Your task to perform on an android device: Go to calendar. Show me events next week Image 0: 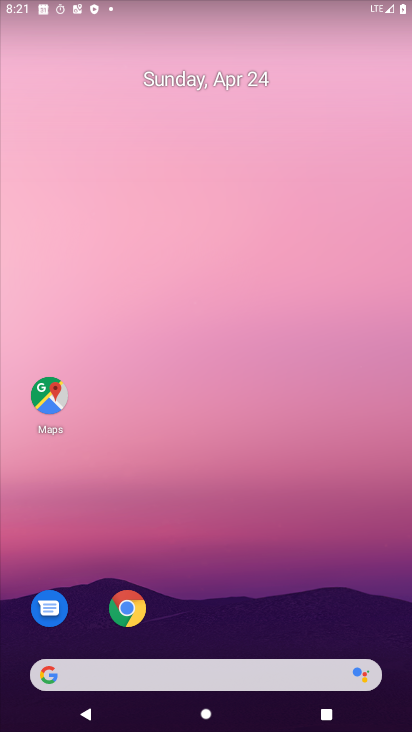
Step 0: drag from (300, 535) to (305, 91)
Your task to perform on an android device: Go to calendar. Show me events next week Image 1: 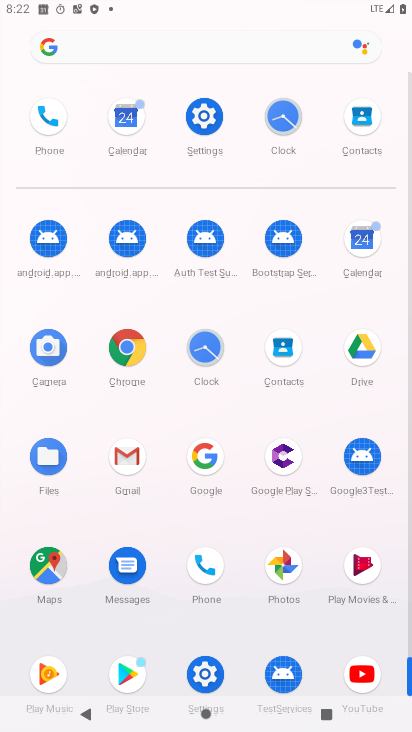
Step 1: click (363, 245)
Your task to perform on an android device: Go to calendar. Show me events next week Image 2: 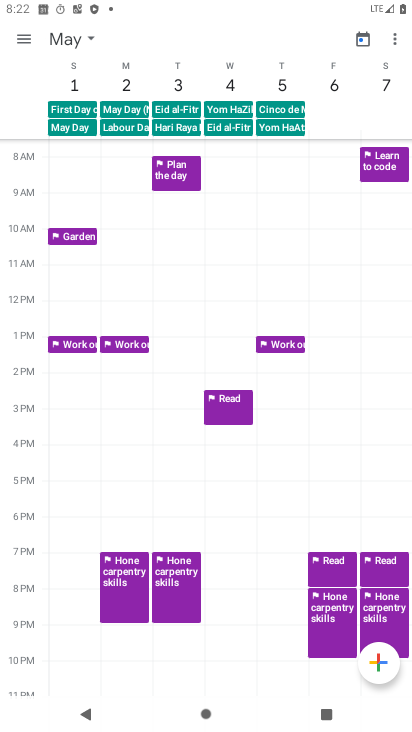
Step 2: task complete